Your task to perform on an android device: Open Youtube and go to "Your channel" Image 0: 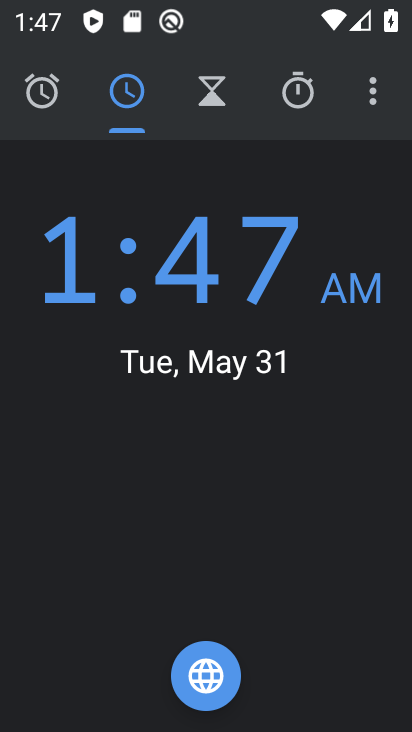
Step 0: press home button
Your task to perform on an android device: Open Youtube and go to "Your channel" Image 1: 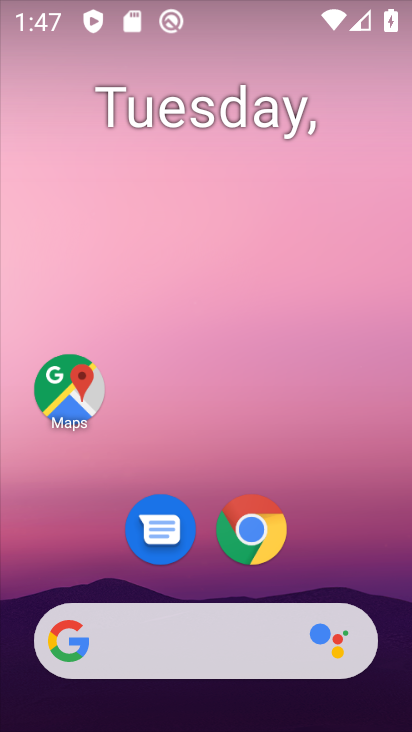
Step 1: drag from (360, 562) to (298, 3)
Your task to perform on an android device: Open Youtube and go to "Your channel" Image 2: 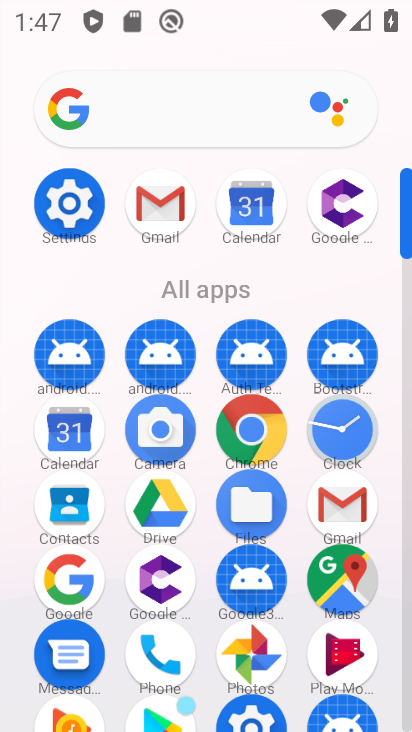
Step 2: click (410, 714)
Your task to perform on an android device: Open Youtube and go to "Your channel" Image 3: 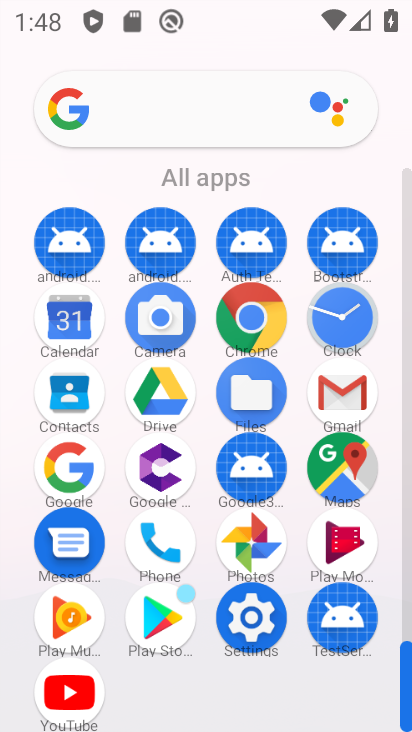
Step 3: click (62, 695)
Your task to perform on an android device: Open Youtube and go to "Your channel" Image 4: 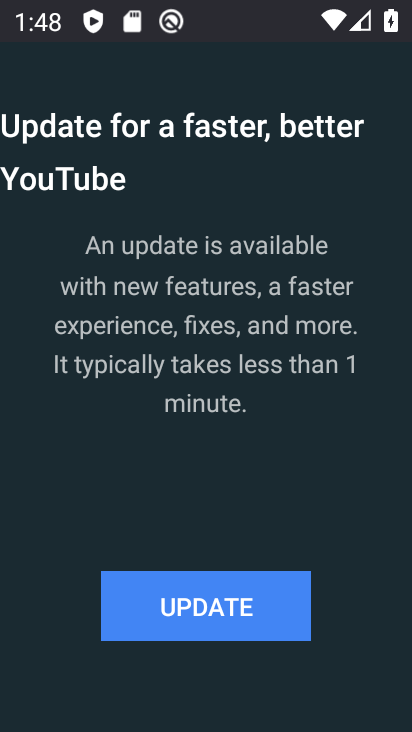
Step 4: click (243, 600)
Your task to perform on an android device: Open Youtube and go to "Your channel" Image 5: 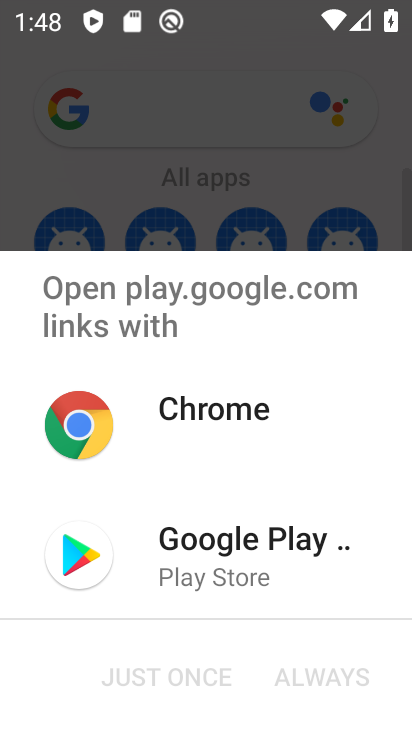
Step 5: click (246, 564)
Your task to perform on an android device: Open Youtube and go to "Your channel" Image 6: 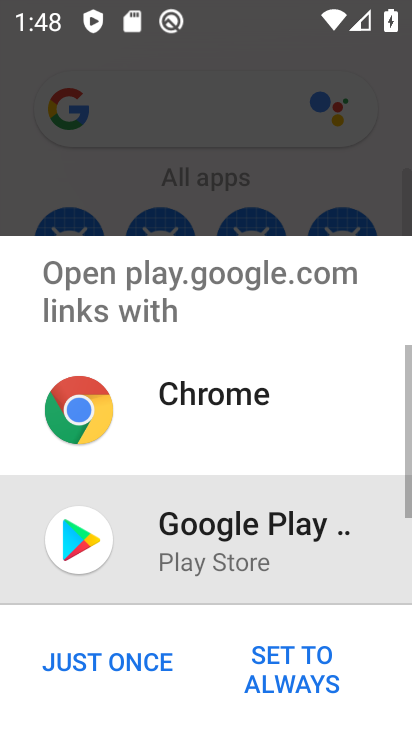
Step 6: click (155, 663)
Your task to perform on an android device: Open Youtube and go to "Your channel" Image 7: 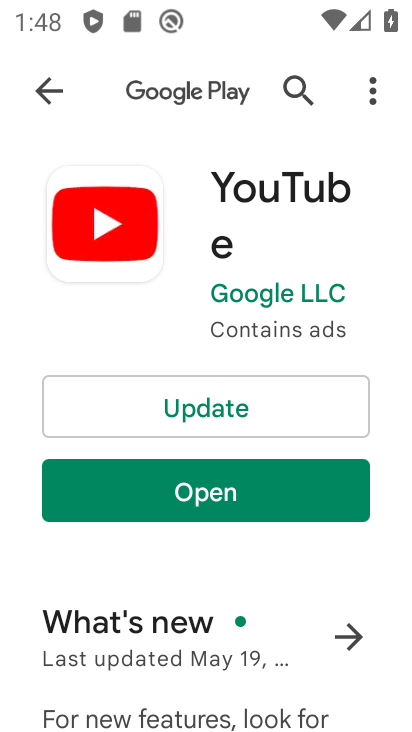
Step 7: click (211, 406)
Your task to perform on an android device: Open Youtube and go to "Your channel" Image 8: 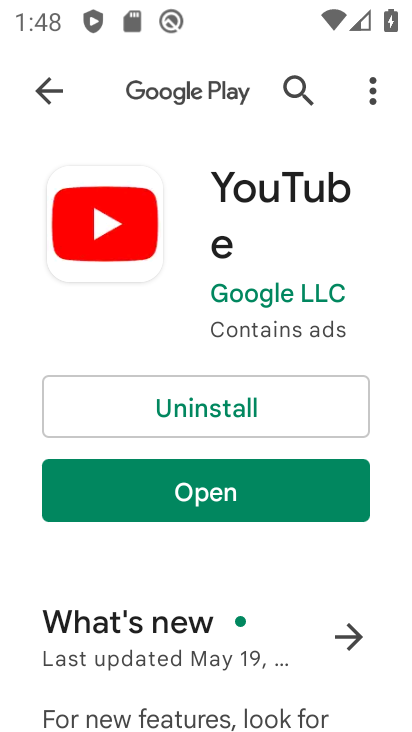
Step 8: click (273, 491)
Your task to perform on an android device: Open Youtube and go to "Your channel" Image 9: 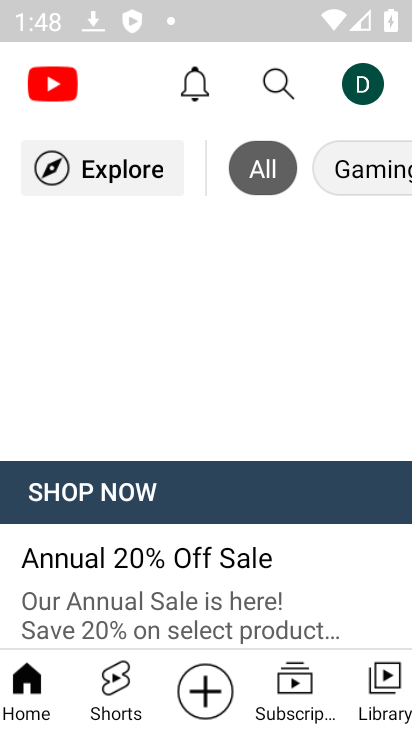
Step 9: click (367, 78)
Your task to perform on an android device: Open Youtube and go to "Your channel" Image 10: 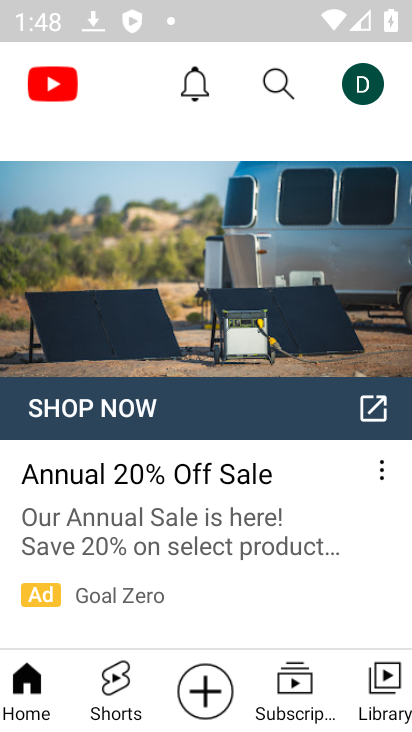
Step 10: click (367, 78)
Your task to perform on an android device: Open Youtube and go to "Your channel" Image 11: 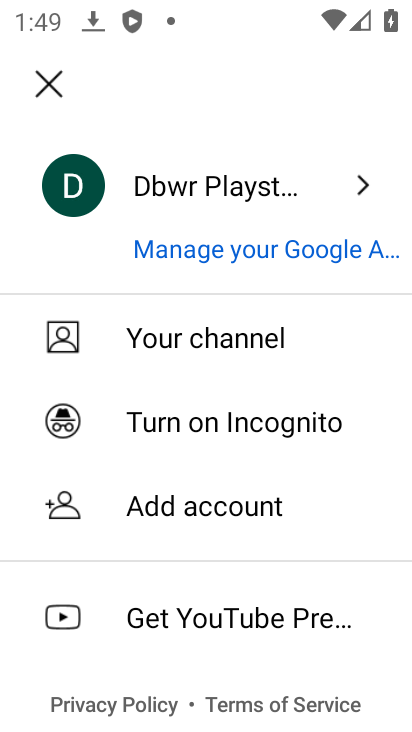
Step 11: click (242, 356)
Your task to perform on an android device: Open Youtube and go to "Your channel" Image 12: 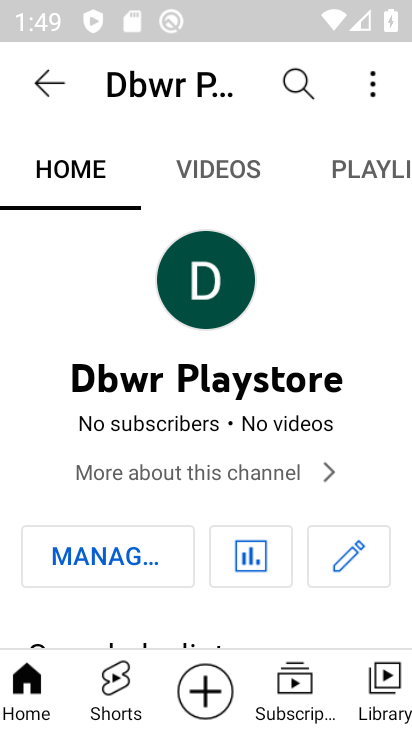
Step 12: task complete